Your task to perform on an android device: Look up "custom art" on Etsy Image 0: 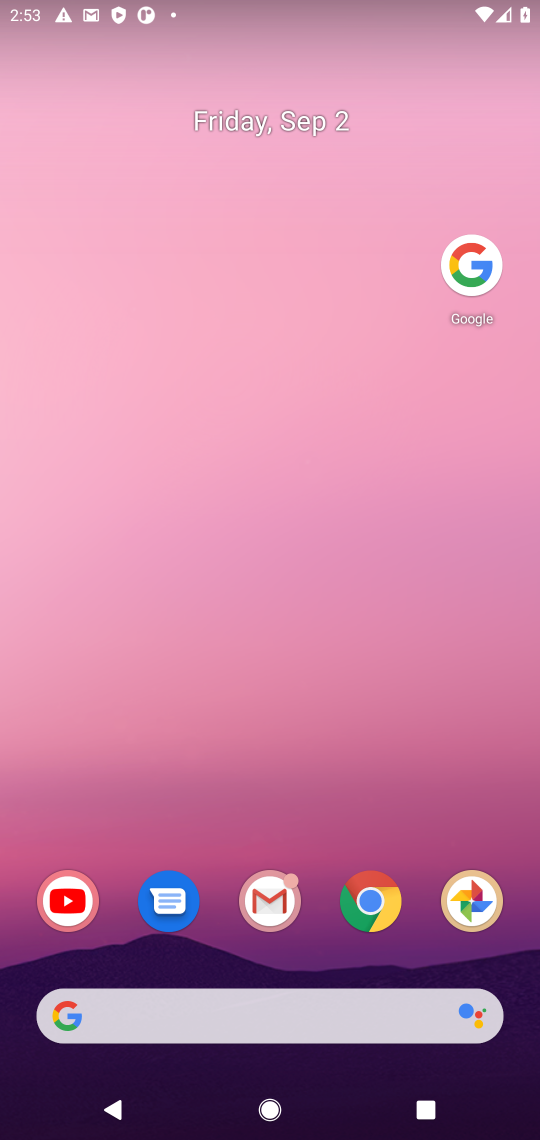
Step 0: drag from (117, 874) to (182, 359)
Your task to perform on an android device: Look up "custom art" on Etsy Image 1: 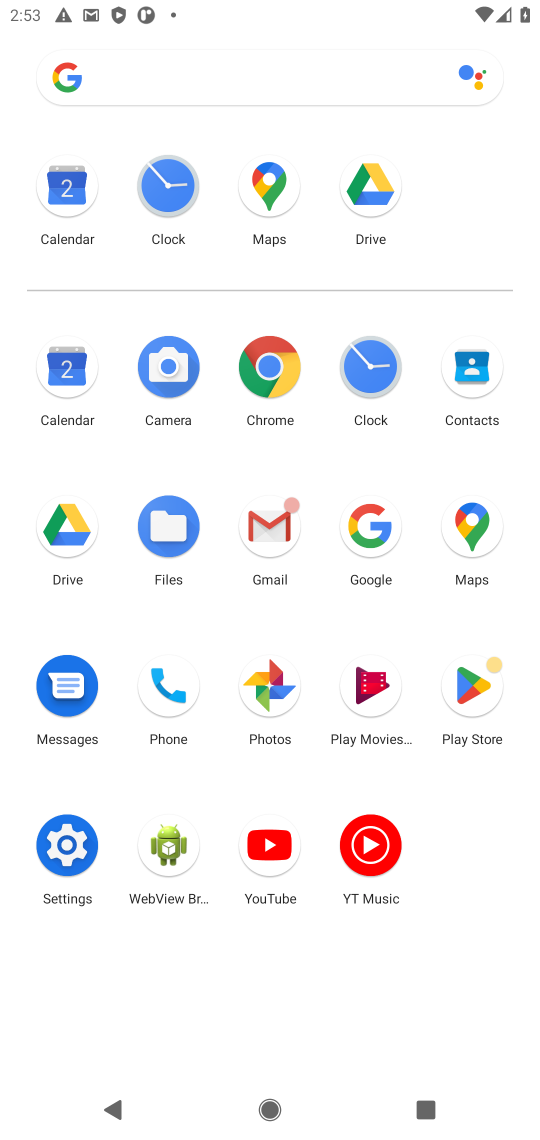
Step 1: click (386, 526)
Your task to perform on an android device: Look up "custom art" on Etsy Image 2: 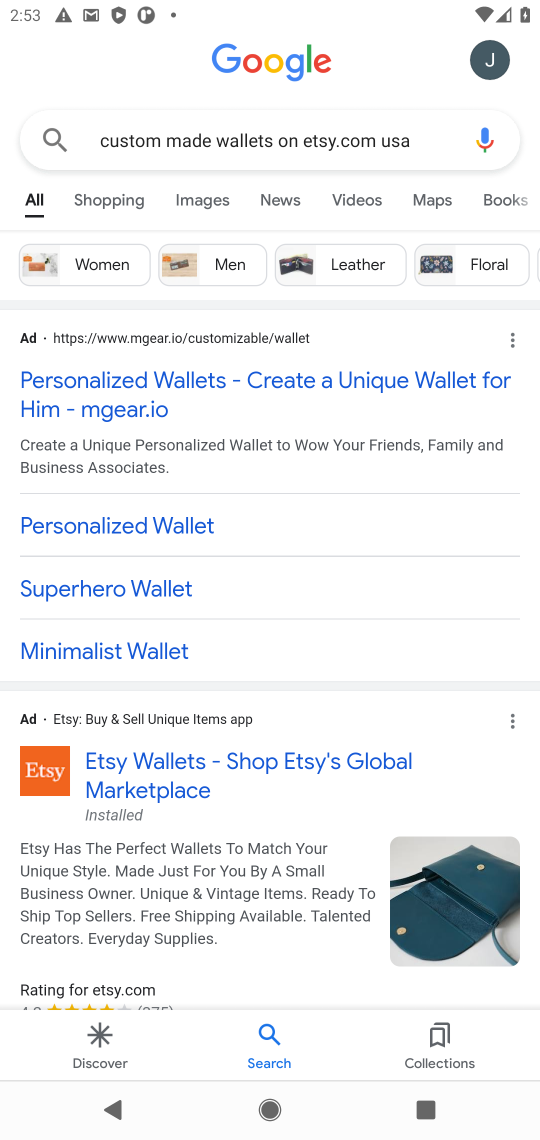
Step 2: click (415, 138)
Your task to perform on an android device: Look up "custom art" on Etsy Image 3: 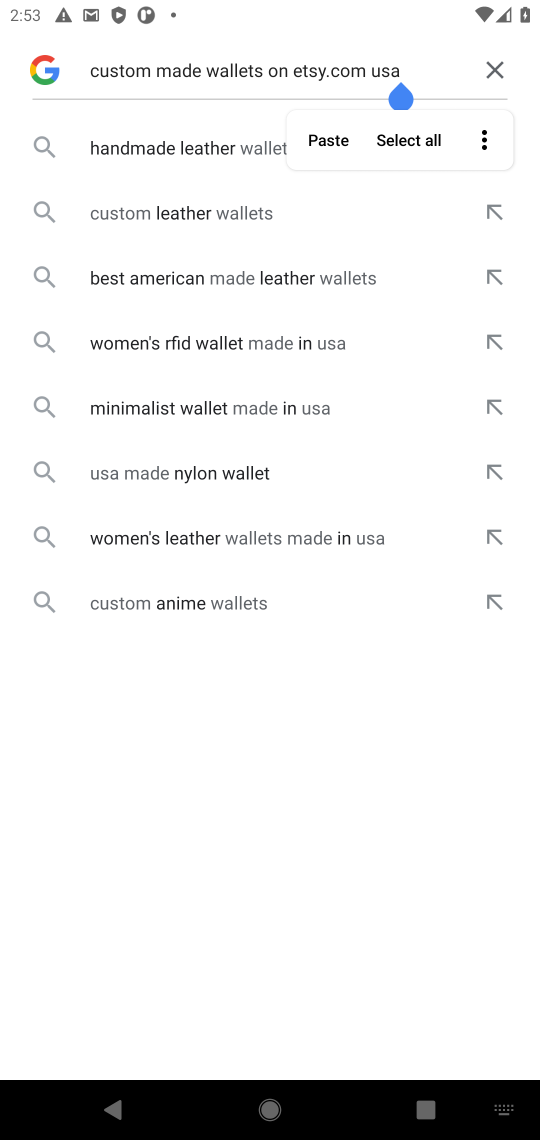
Step 3: click (506, 63)
Your task to perform on an android device: Look up "custom art" on Etsy Image 4: 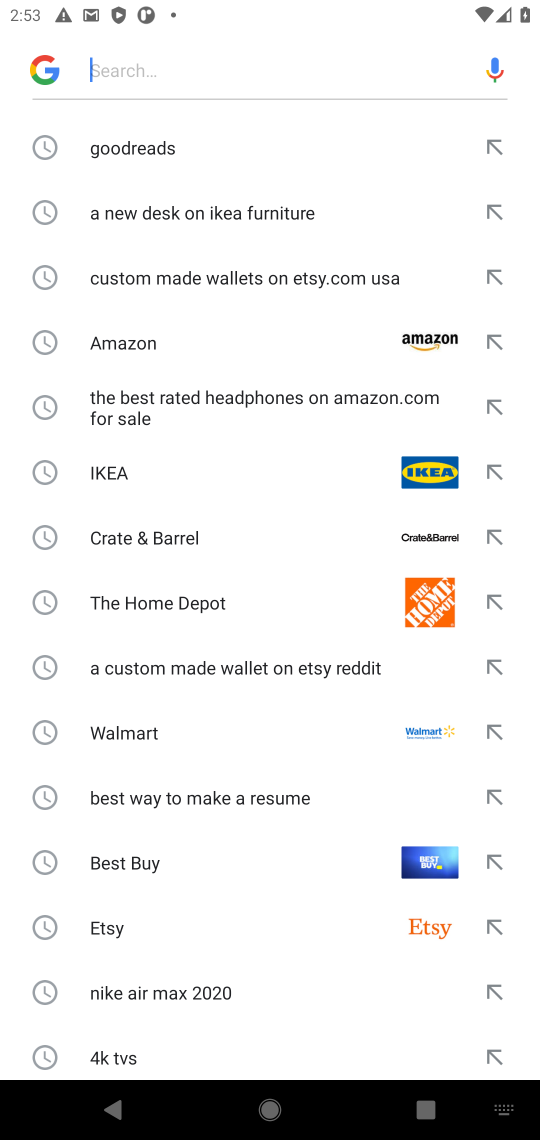
Step 4: click (245, 59)
Your task to perform on an android device: Look up "custom art" on Etsy Image 5: 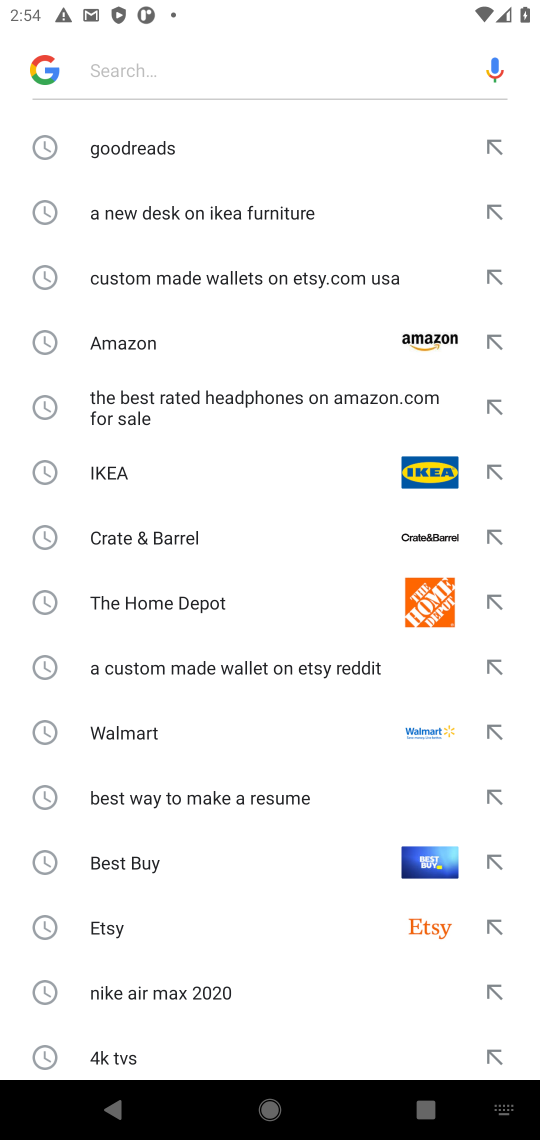
Step 5: type "Look up "custom art" on Etsy "
Your task to perform on an android device: Look up "custom art" on Etsy Image 6: 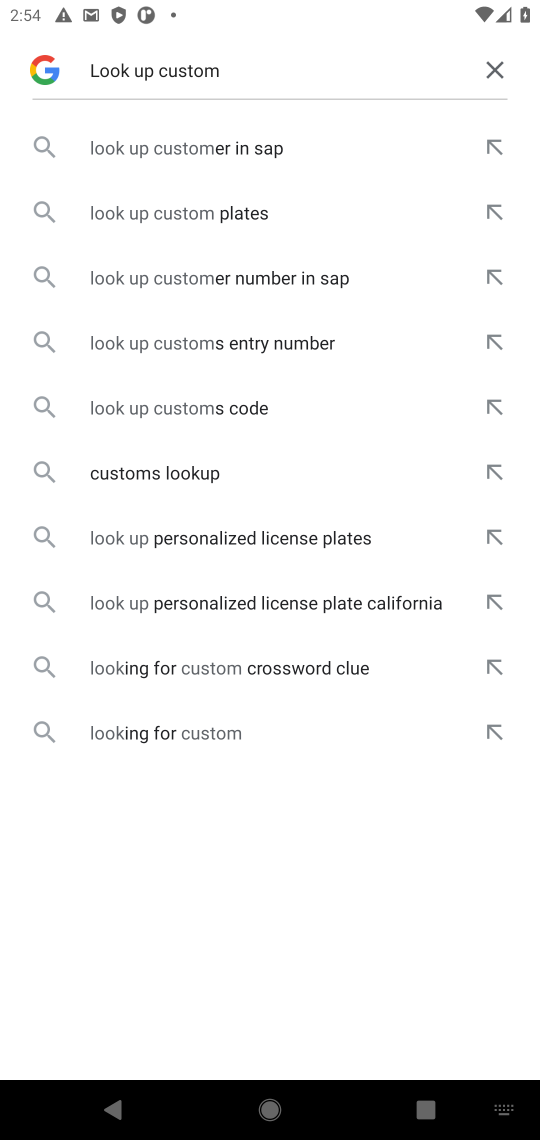
Step 6: click (145, 156)
Your task to perform on an android device: Look up "custom art" on Etsy Image 7: 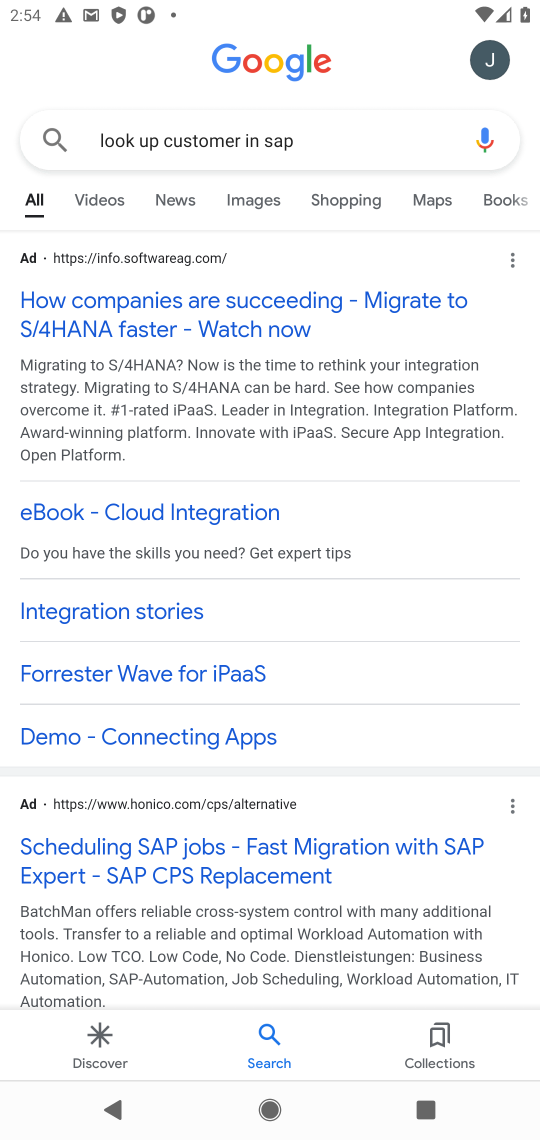
Step 7: drag from (309, 647) to (358, 486)
Your task to perform on an android device: Look up "custom art" on Etsy Image 8: 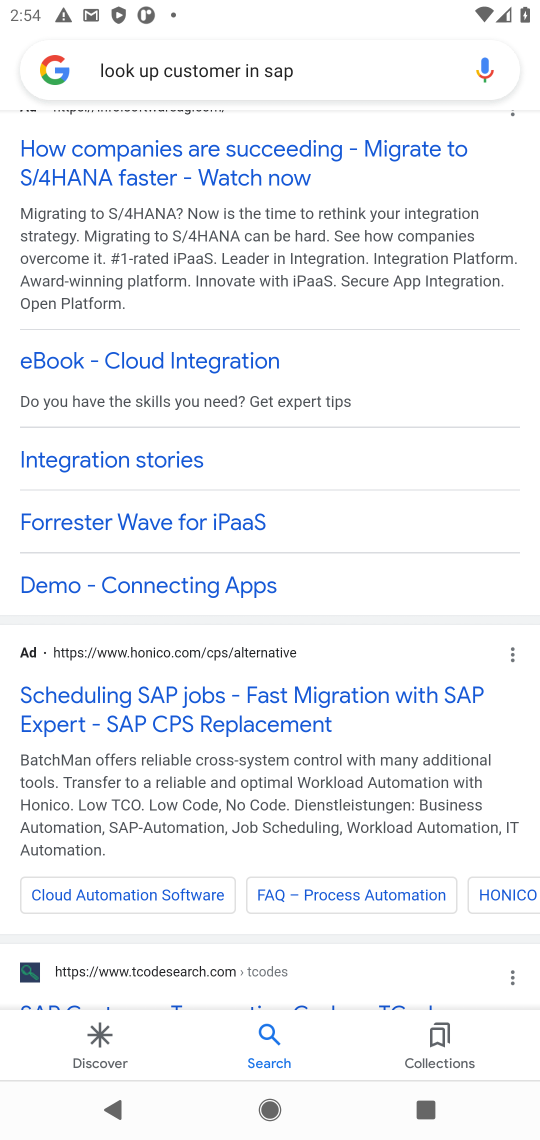
Step 8: click (323, 52)
Your task to perform on an android device: Look up "custom art" on Etsy Image 9: 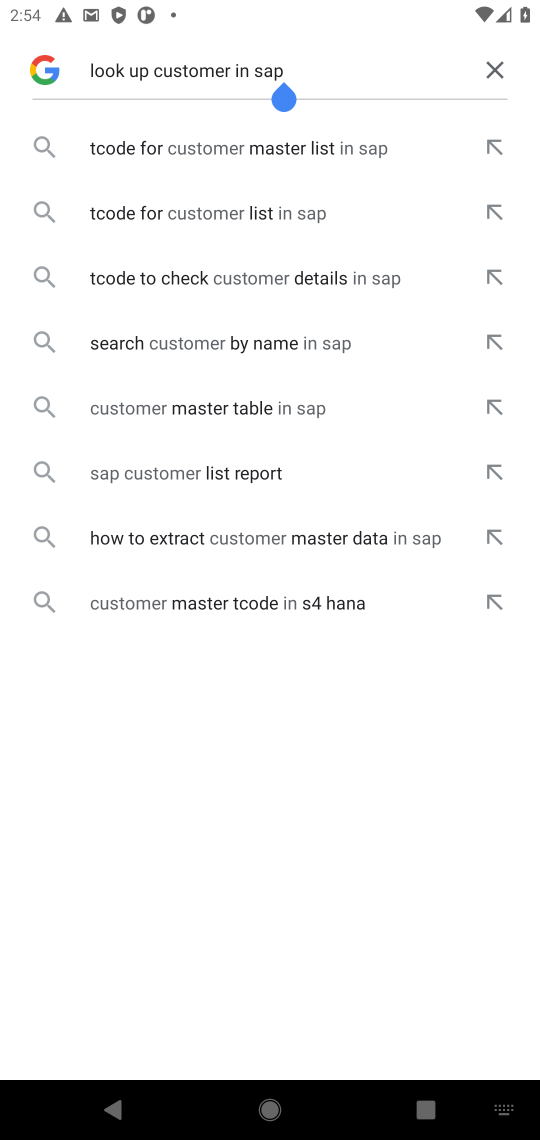
Step 9: click (481, 64)
Your task to perform on an android device: Look up "custom art" on Etsy Image 10: 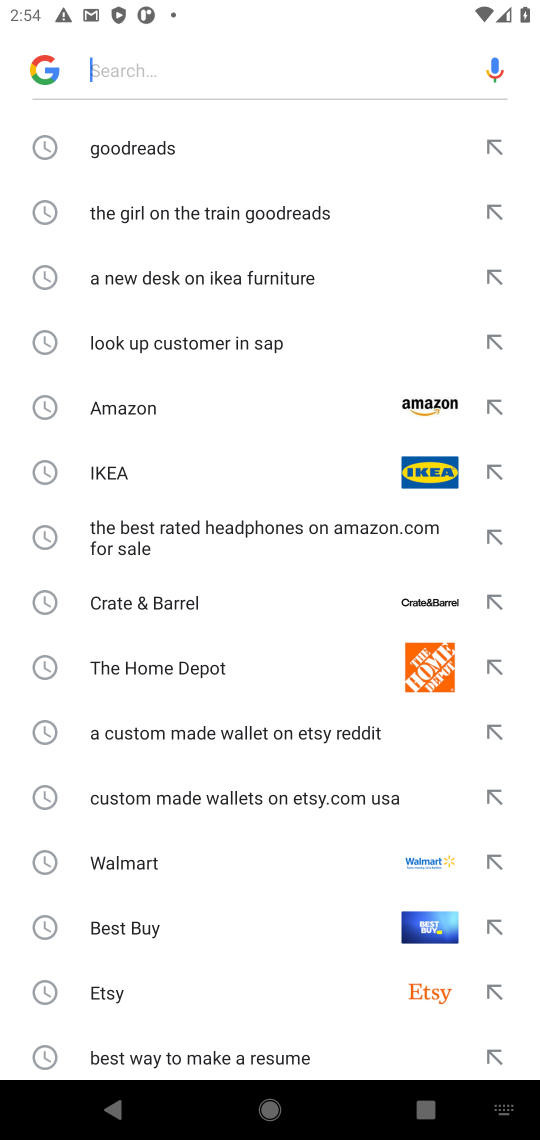
Step 10: click (245, 68)
Your task to perform on an android device: Look up "custom art" on Etsy Image 11: 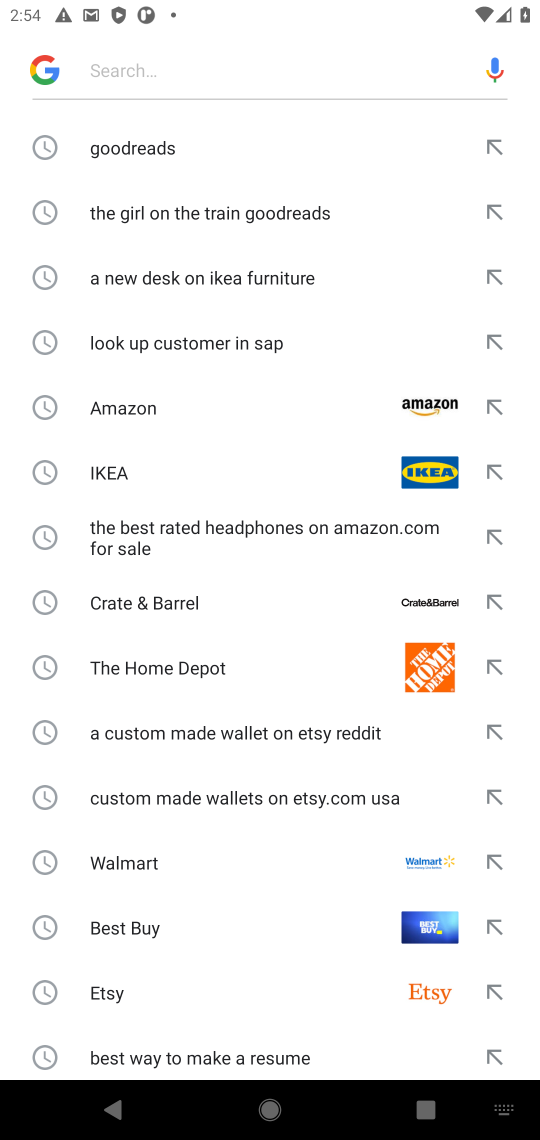
Step 11: type "custom art" on Etsy "
Your task to perform on an android device: Look up "custom art" on Etsy Image 12: 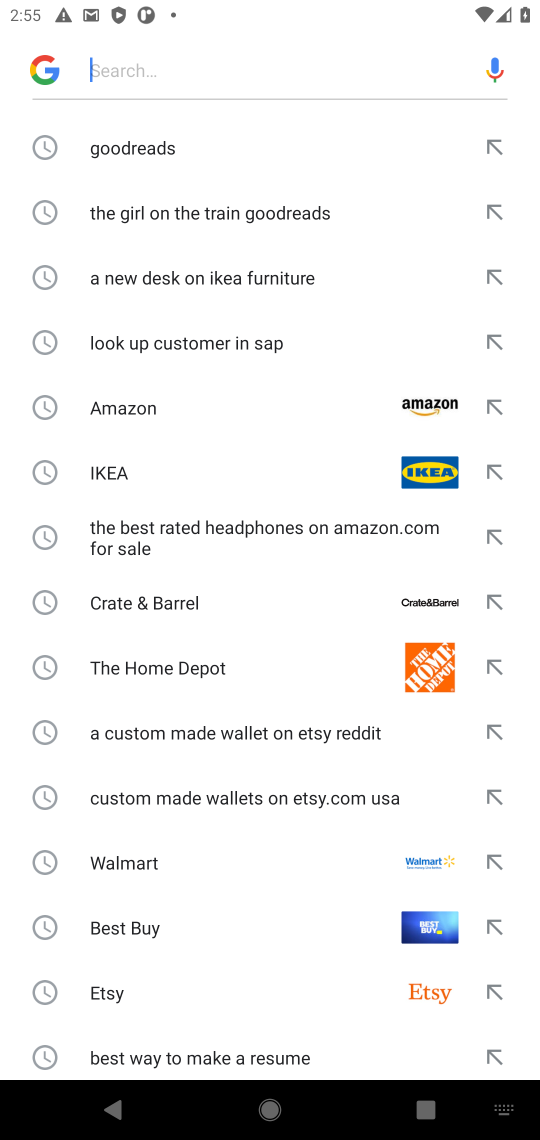
Step 12: click (185, 57)
Your task to perform on an android device: Look up "custom art" on Etsy Image 13: 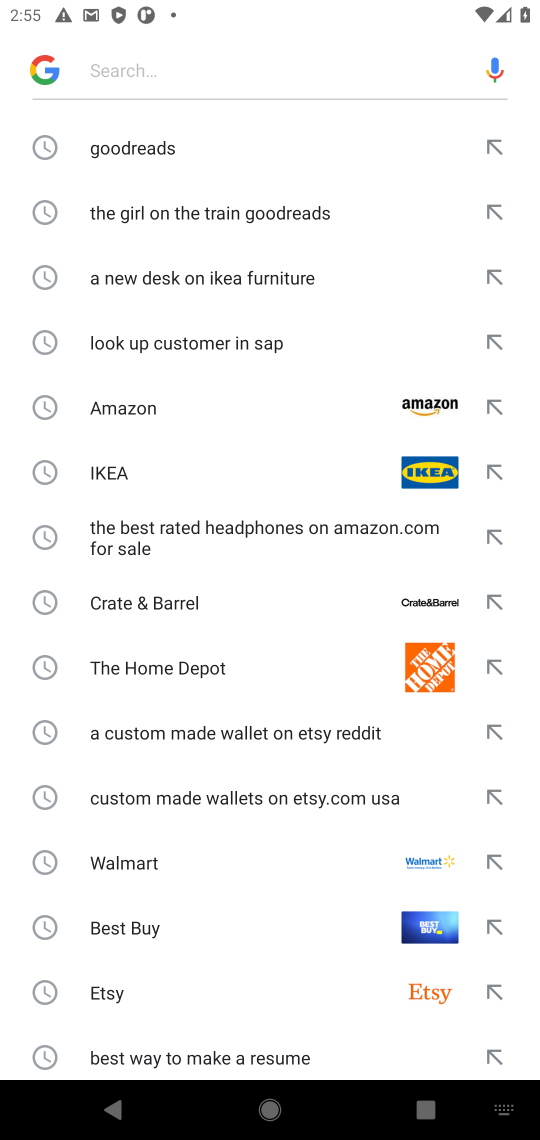
Step 13: type "custom art" on Etsy "
Your task to perform on an android device: Look up "custom art" on Etsy Image 14: 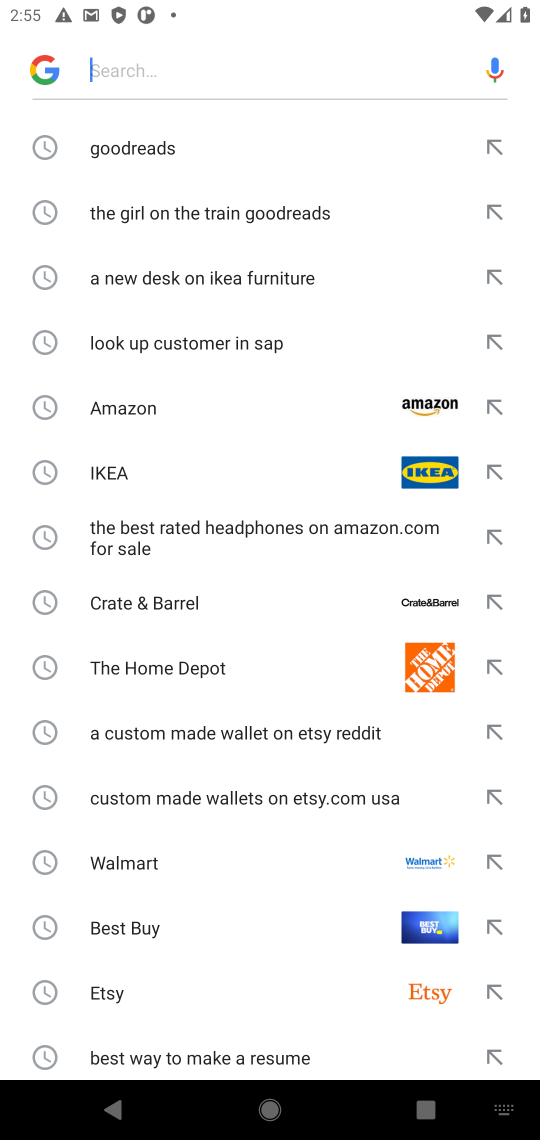
Step 14: click (186, 58)
Your task to perform on an android device: Look up "custom art" on Etsy Image 15: 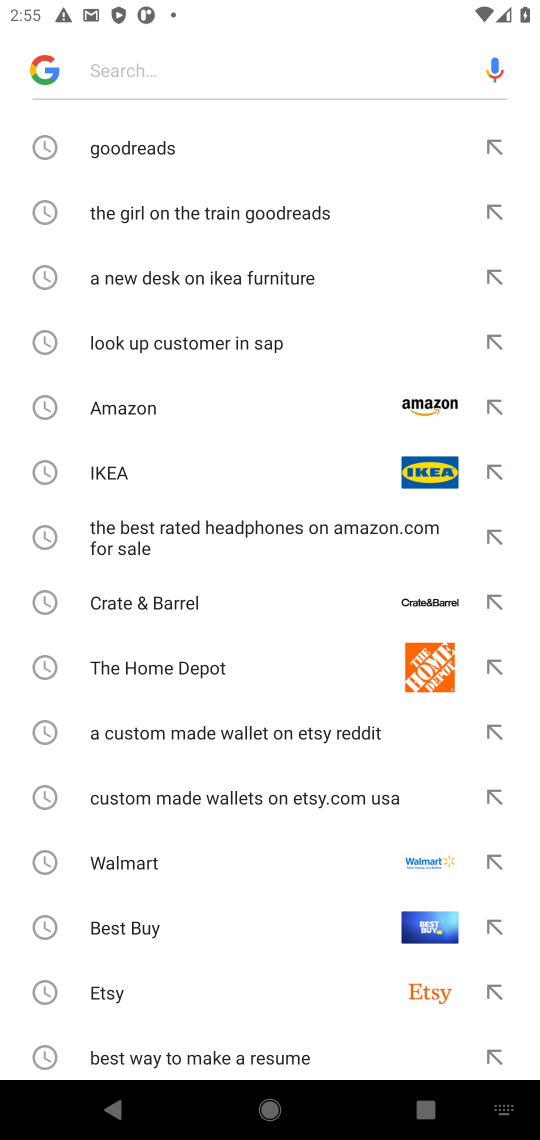
Step 15: click (212, 58)
Your task to perform on an android device: Look up "custom art" on Etsy Image 16: 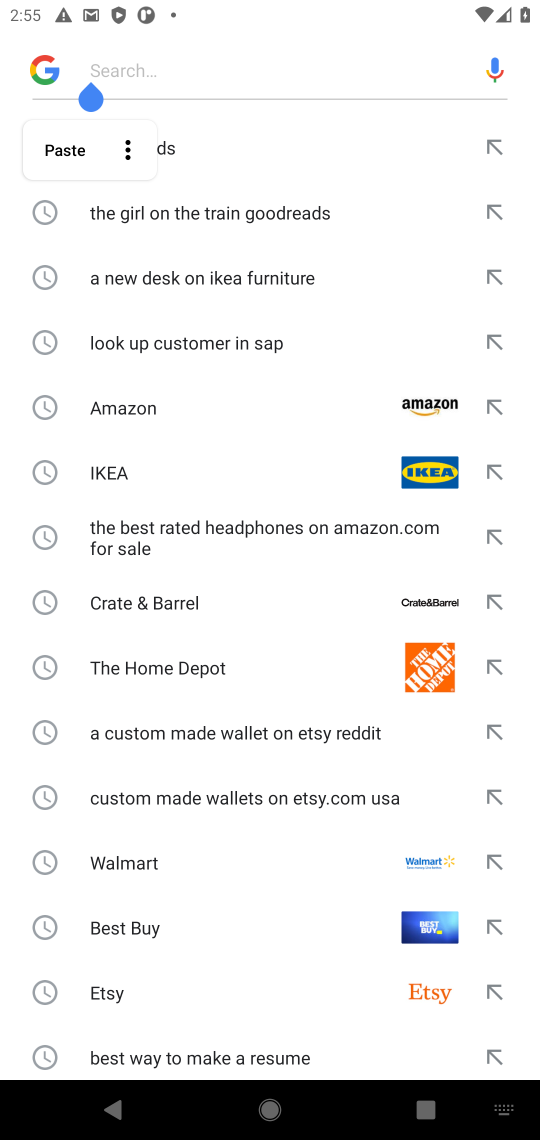
Step 16: click (212, 58)
Your task to perform on an android device: Look up "custom art" on Etsy Image 17: 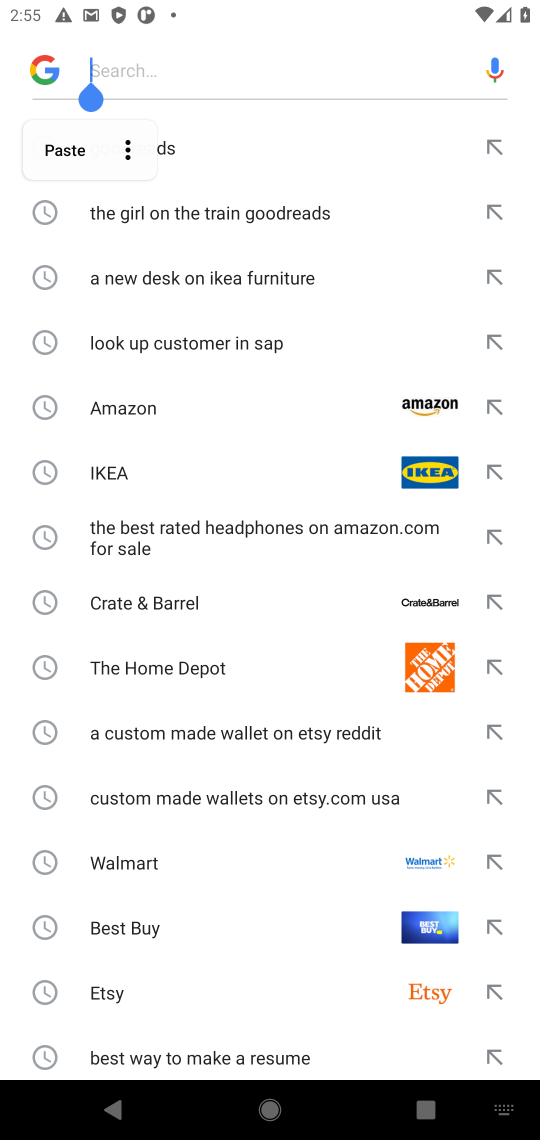
Step 17: click (82, 144)
Your task to perform on an android device: Look up "custom art" on Etsy Image 18: 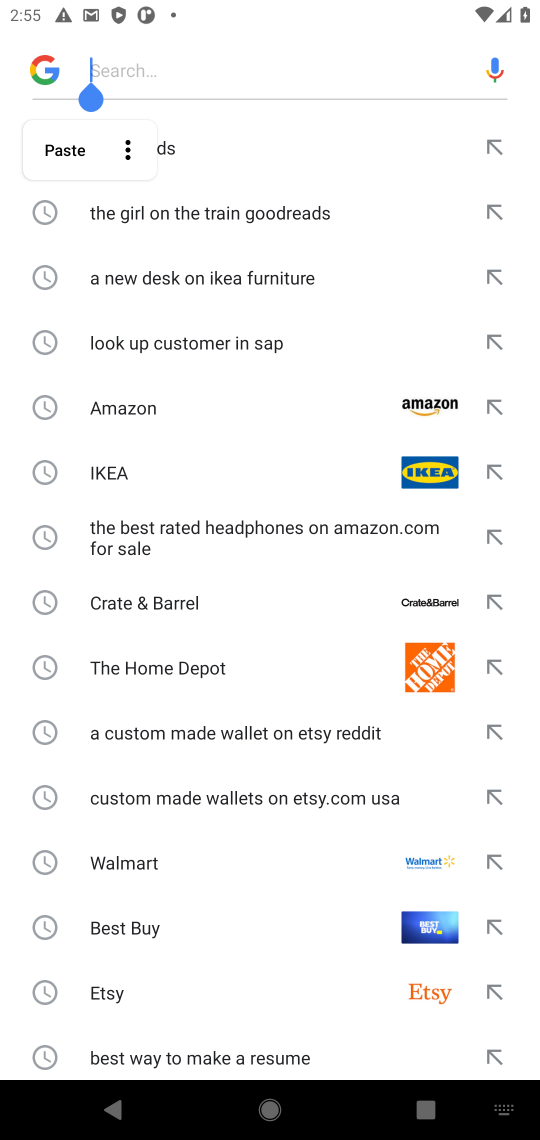
Step 18: click (48, 137)
Your task to perform on an android device: Look up "custom art" on Etsy Image 19: 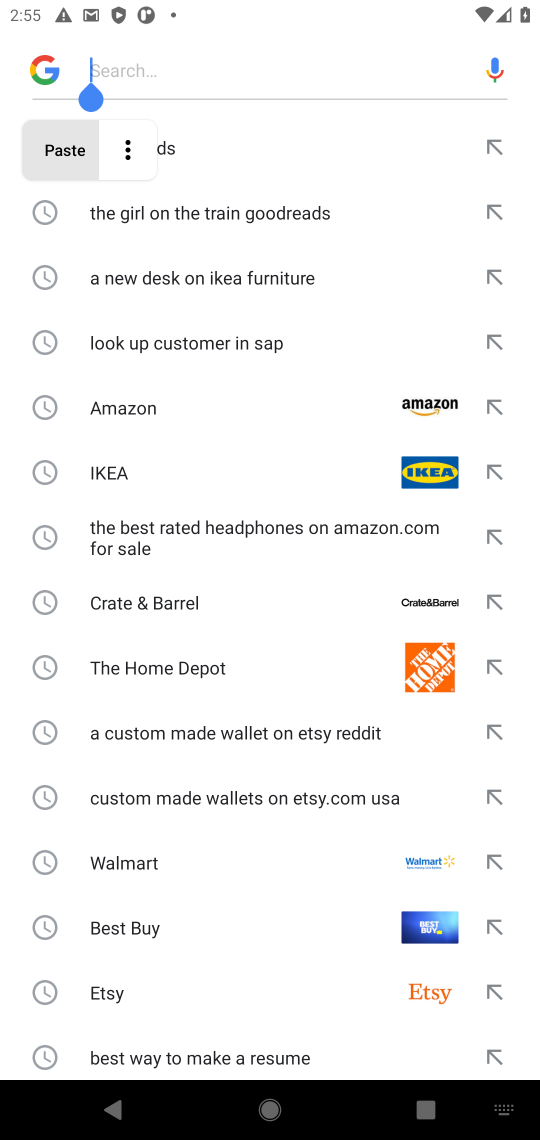
Step 19: click (48, 145)
Your task to perform on an android device: Look up "custom art" on Etsy Image 20: 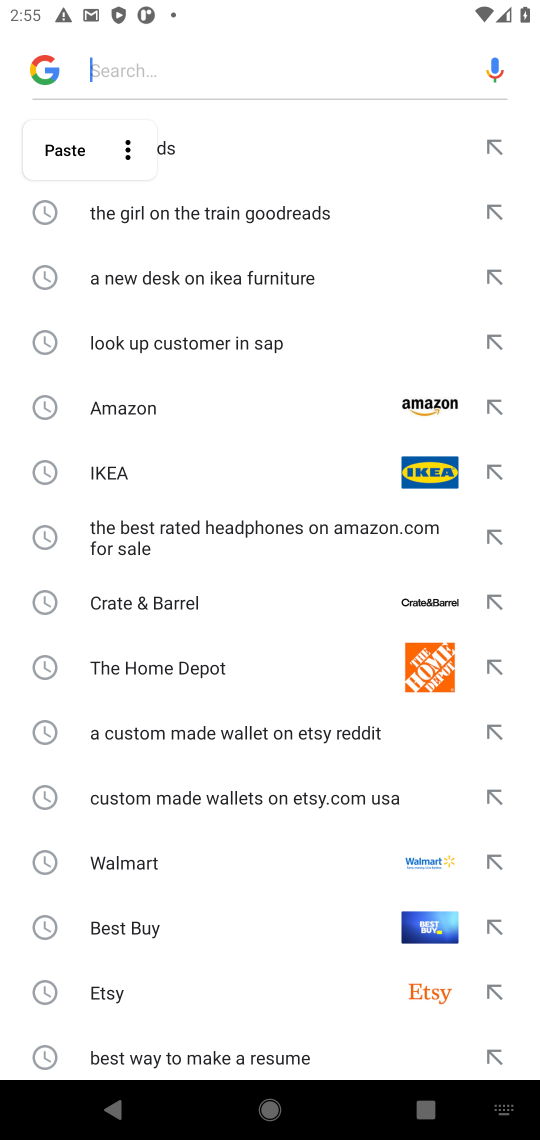
Step 20: click (67, 139)
Your task to perform on an android device: Look up "custom art" on Etsy Image 21: 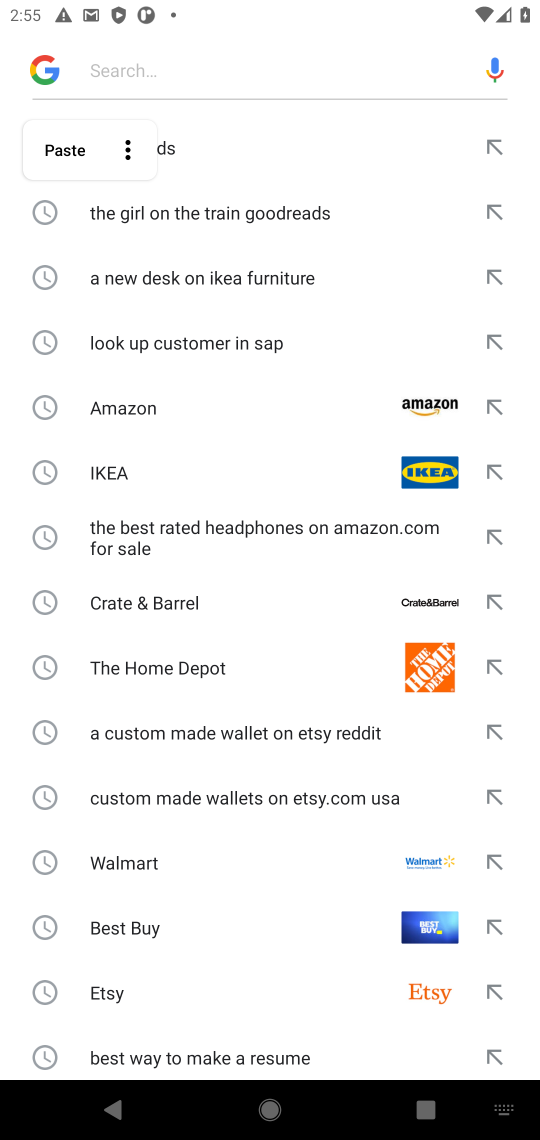
Step 21: task complete